Your task to perform on an android device: Open Reddit.com Image 0: 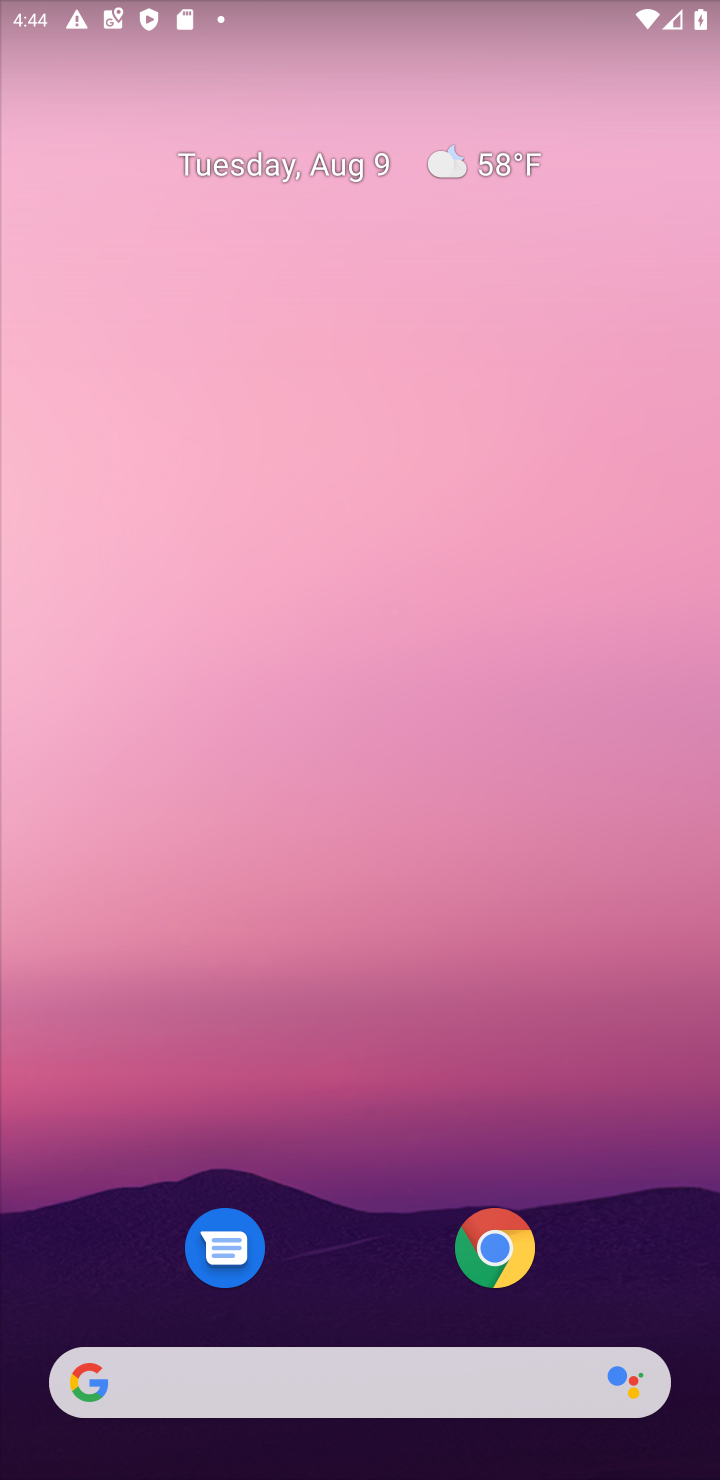
Step 0: drag from (384, 1258) to (333, 398)
Your task to perform on an android device: Open Reddit.com Image 1: 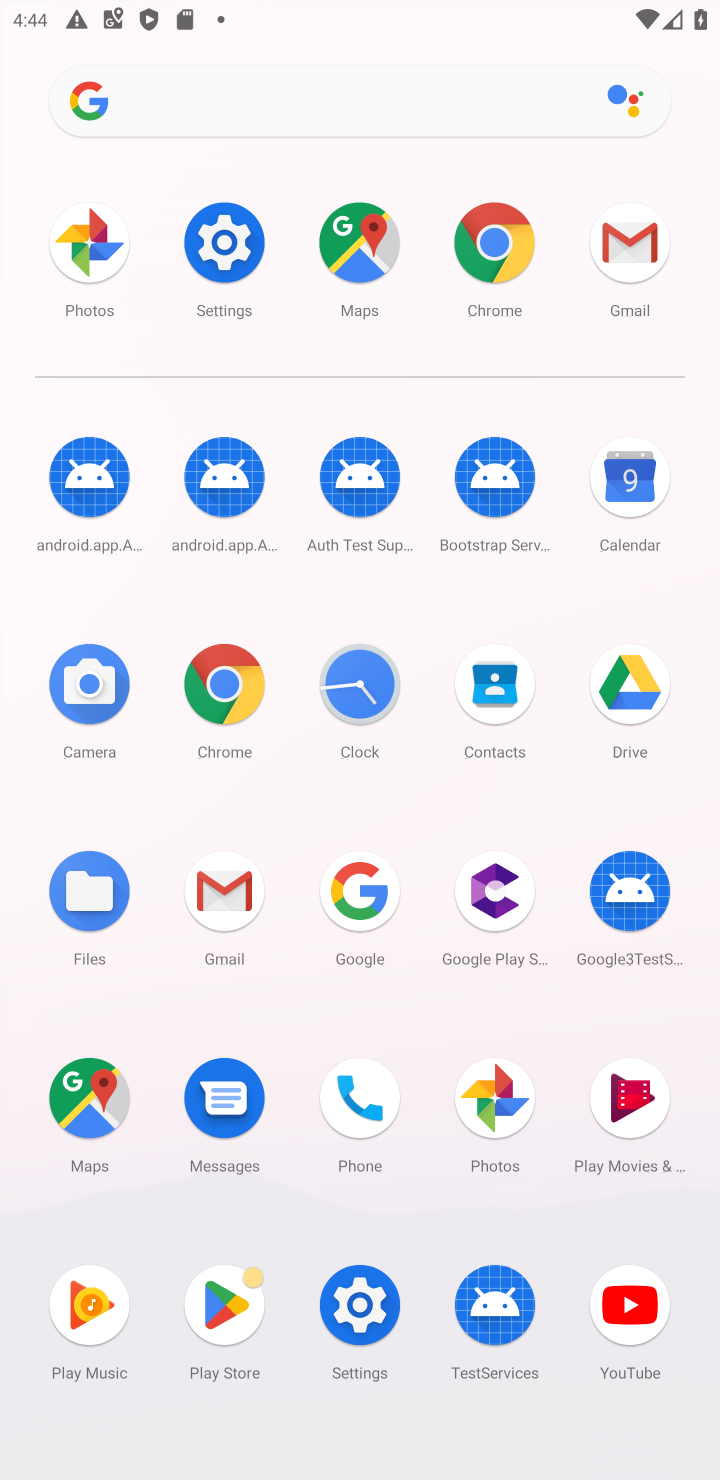
Step 1: click (218, 682)
Your task to perform on an android device: Open Reddit.com Image 2: 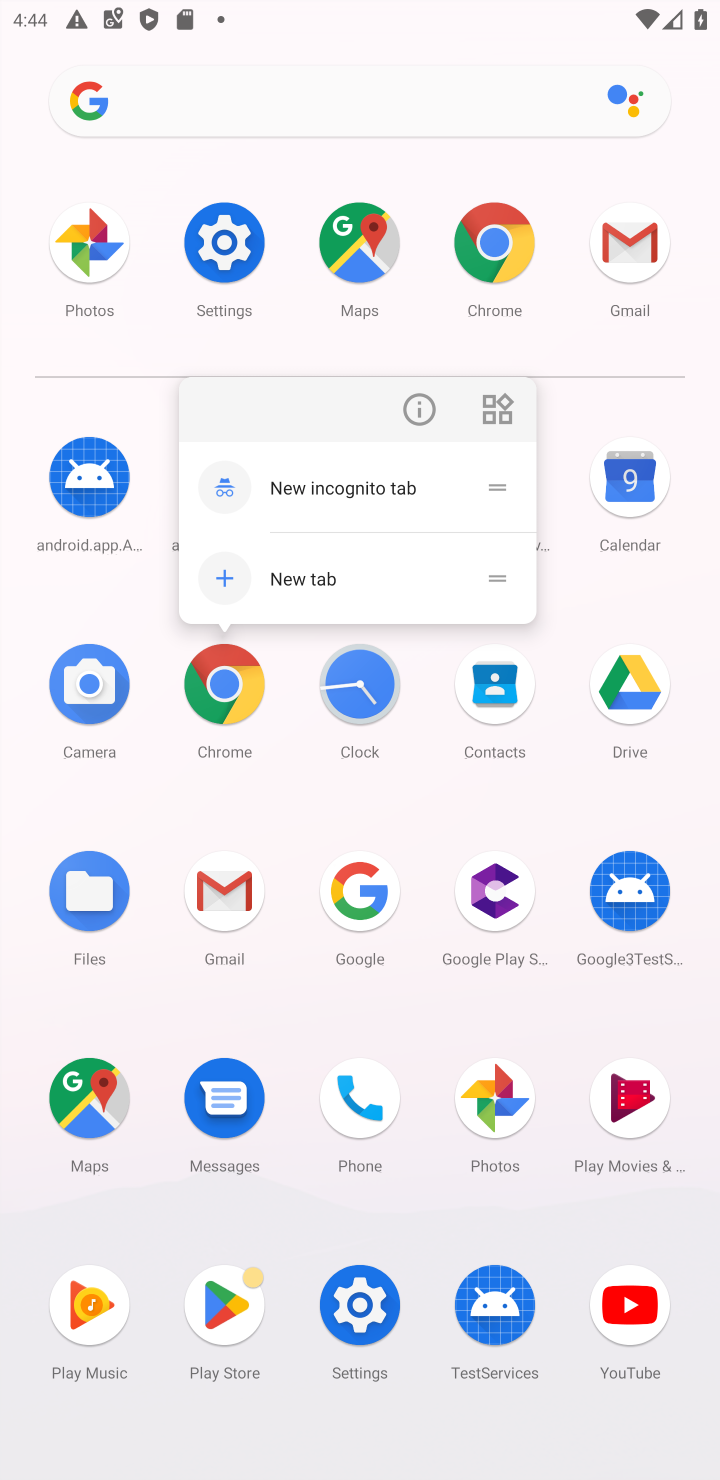
Step 2: click (230, 684)
Your task to perform on an android device: Open Reddit.com Image 3: 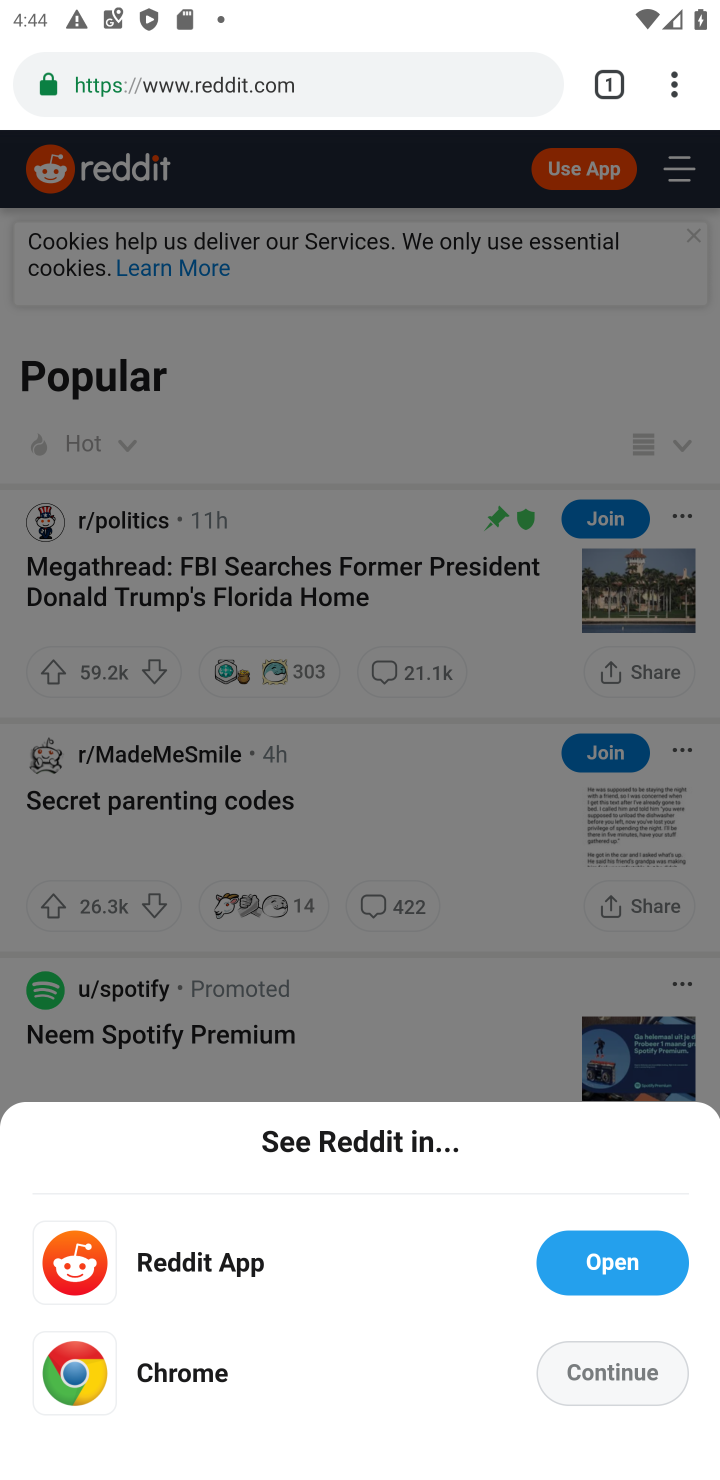
Step 3: task complete